Your task to perform on an android device: turn off location Image 0: 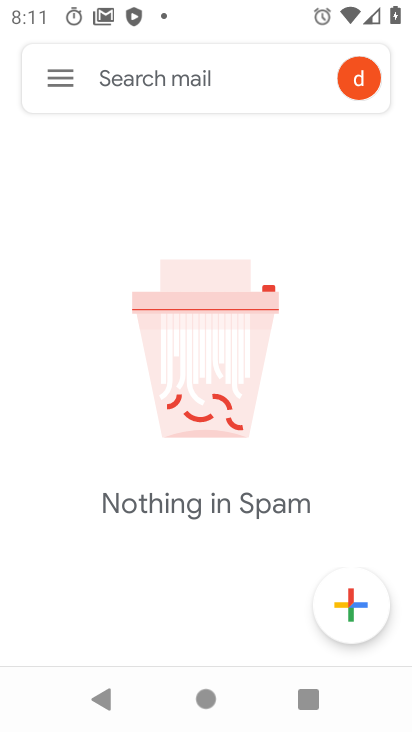
Step 0: press home button
Your task to perform on an android device: turn off location Image 1: 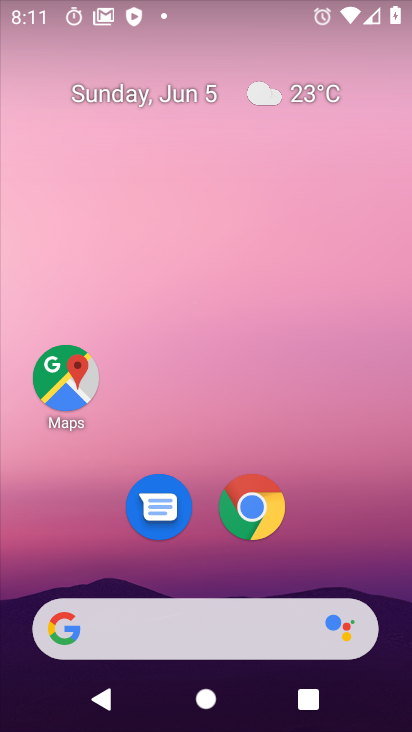
Step 1: drag from (209, 645) to (306, 119)
Your task to perform on an android device: turn off location Image 2: 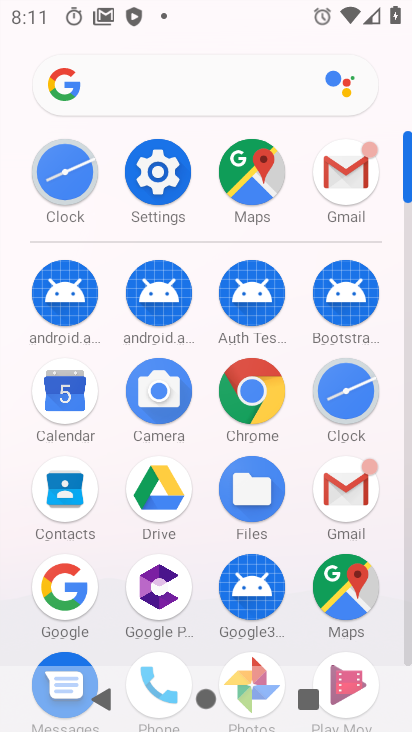
Step 2: click (215, 554)
Your task to perform on an android device: turn off location Image 3: 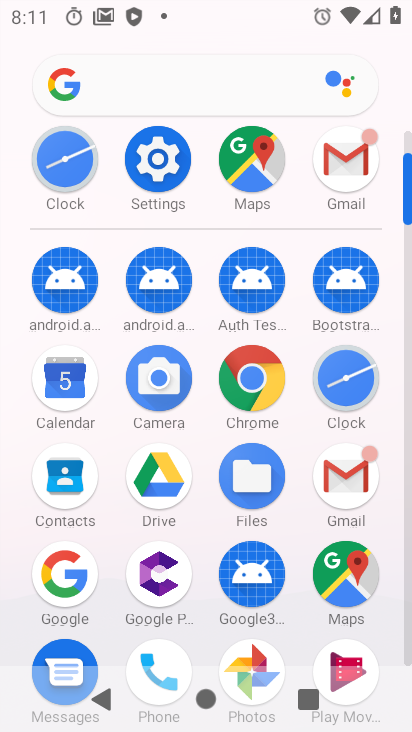
Step 3: click (153, 179)
Your task to perform on an android device: turn off location Image 4: 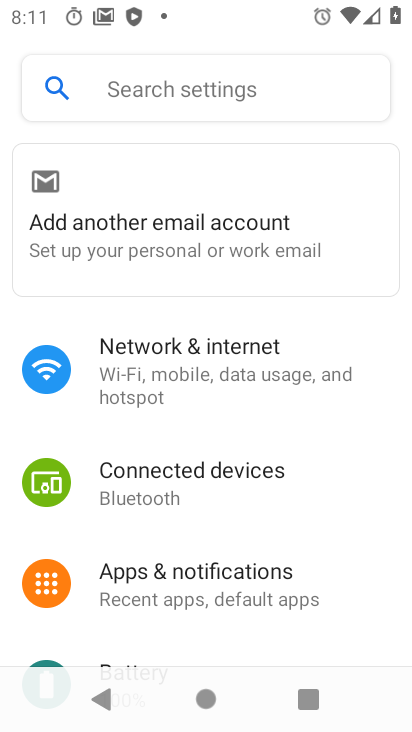
Step 4: click (188, 96)
Your task to perform on an android device: turn off location Image 5: 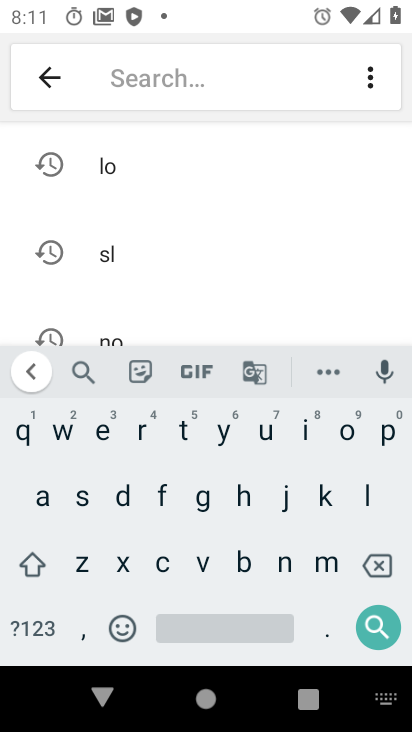
Step 5: click (156, 158)
Your task to perform on an android device: turn off location Image 6: 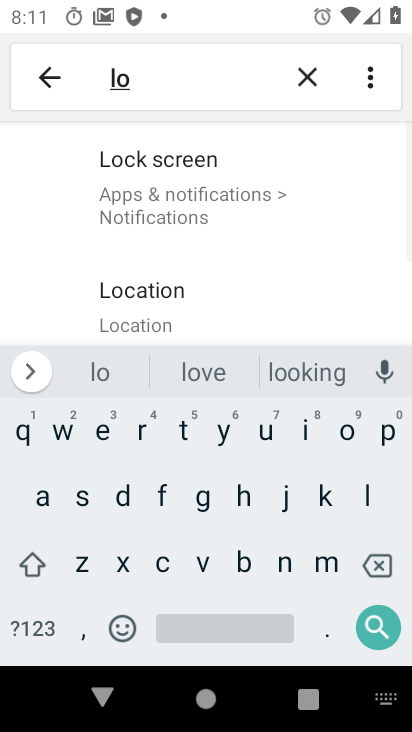
Step 6: click (168, 328)
Your task to perform on an android device: turn off location Image 7: 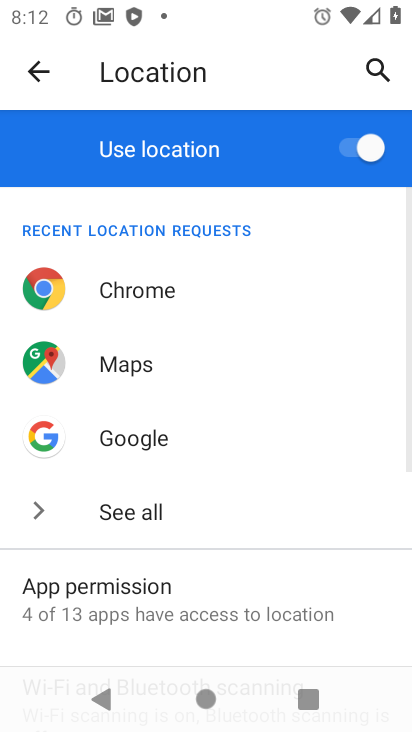
Step 7: click (347, 140)
Your task to perform on an android device: turn off location Image 8: 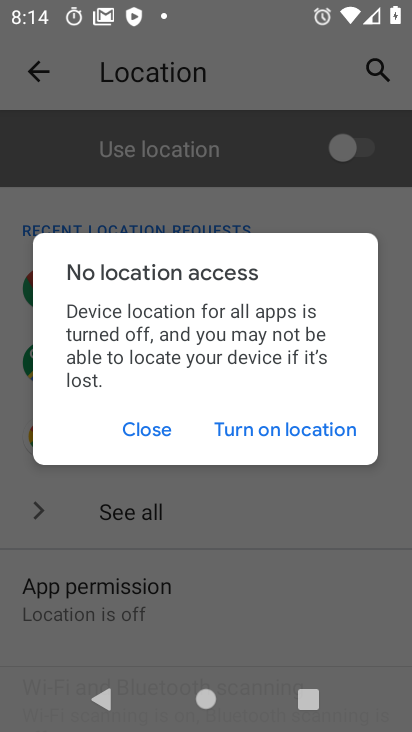
Step 8: task complete